Your task to perform on an android device: clear history in the chrome app Image 0: 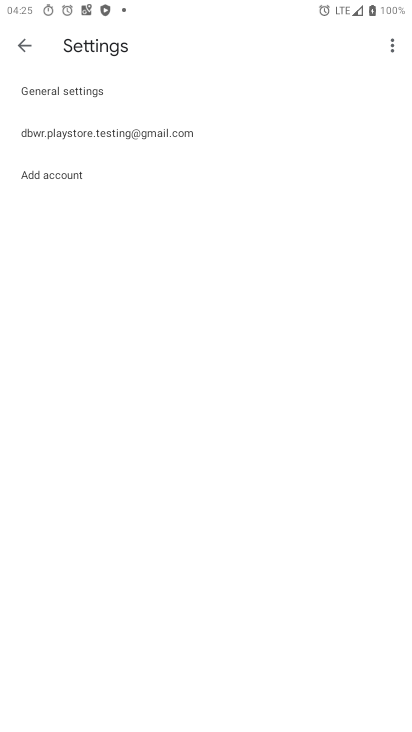
Step 0: press home button
Your task to perform on an android device: clear history in the chrome app Image 1: 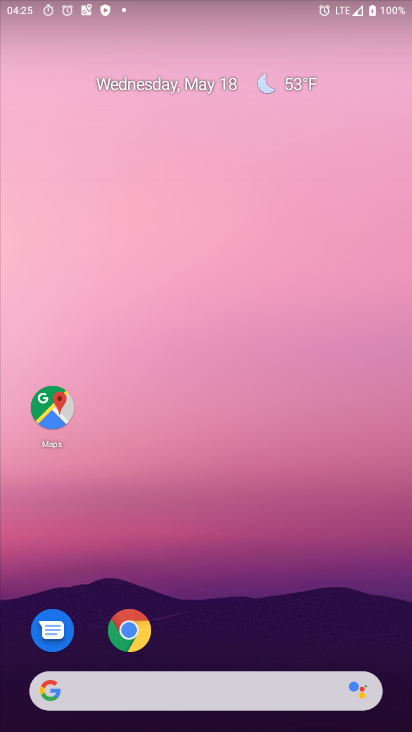
Step 1: click (132, 632)
Your task to perform on an android device: clear history in the chrome app Image 2: 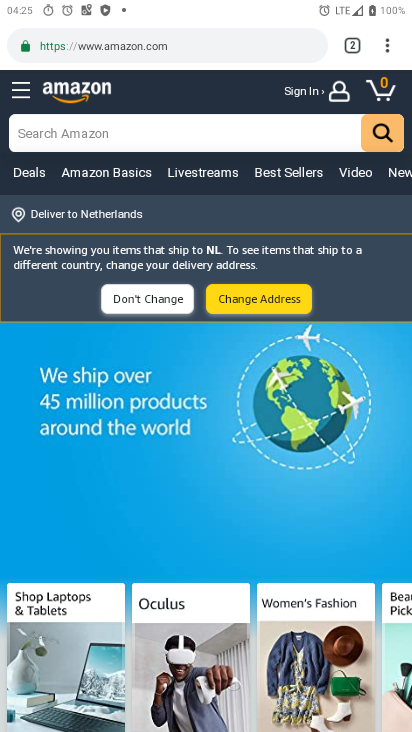
Step 2: click (389, 48)
Your task to perform on an android device: clear history in the chrome app Image 3: 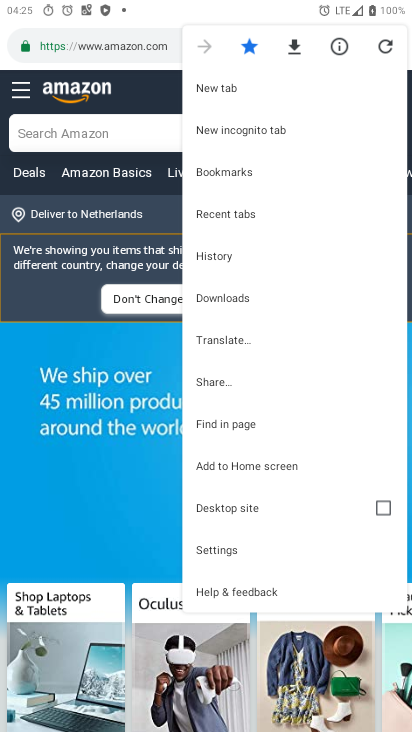
Step 3: click (226, 252)
Your task to perform on an android device: clear history in the chrome app Image 4: 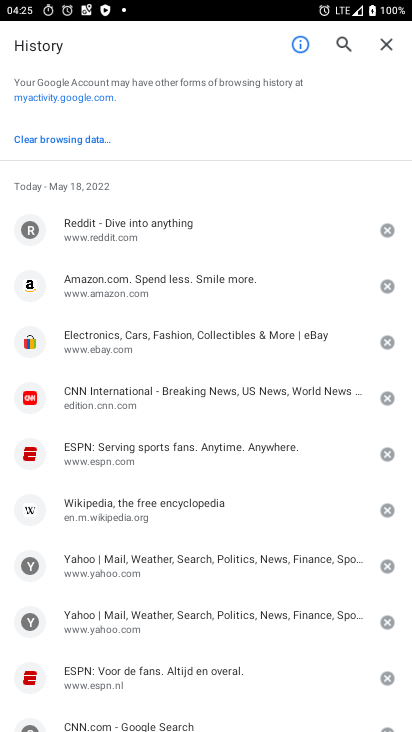
Step 4: click (65, 140)
Your task to perform on an android device: clear history in the chrome app Image 5: 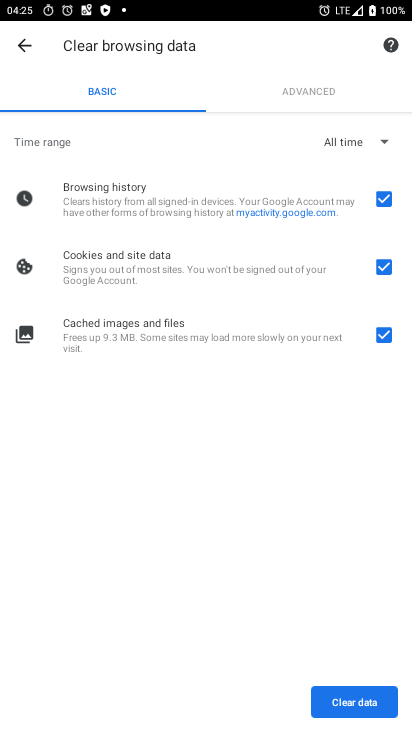
Step 5: click (376, 334)
Your task to perform on an android device: clear history in the chrome app Image 6: 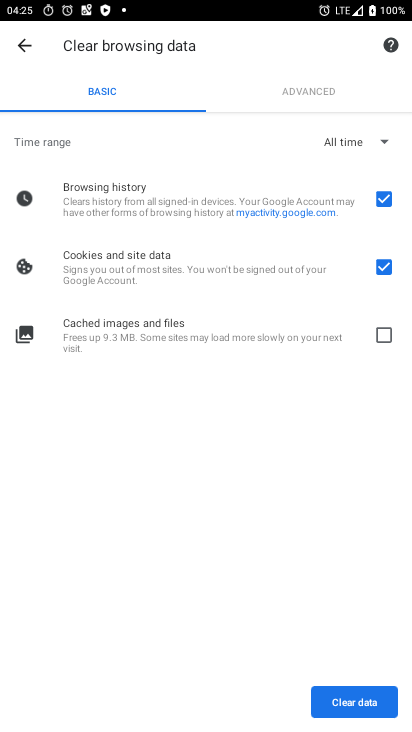
Step 6: click (384, 266)
Your task to perform on an android device: clear history in the chrome app Image 7: 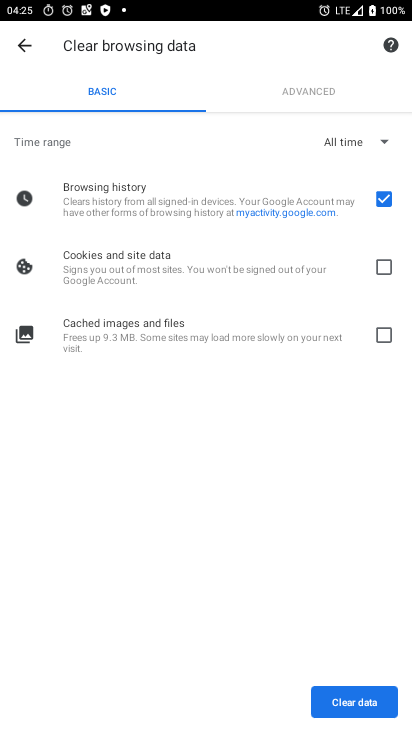
Step 7: click (344, 699)
Your task to perform on an android device: clear history in the chrome app Image 8: 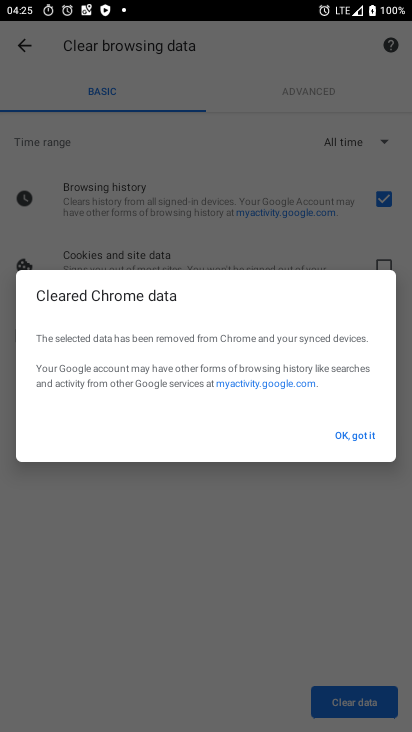
Step 8: click (343, 433)
Your task to perform on an android device: clear history in the chrome app Image 9: 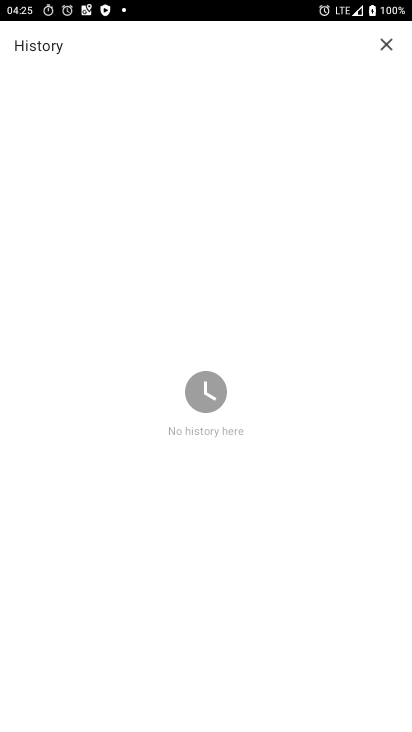
Step 9: task complete